Your task to perform on an android device: Go to Amazon Image 0: 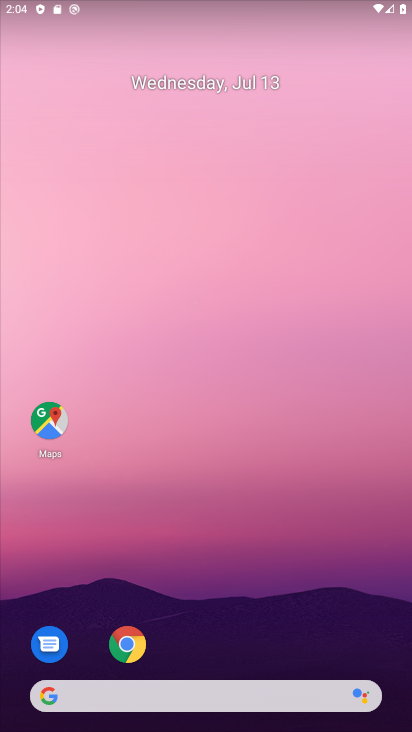
Step 0: drag from (355, 625) to (353, 209)
Your task to perform on an android device: Go to Amazon Image 1: 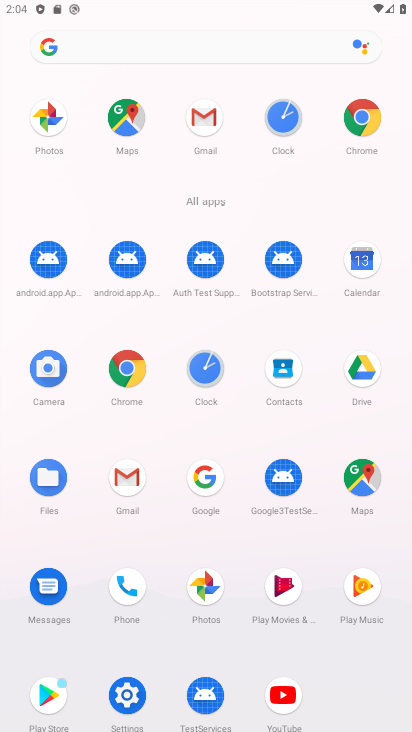
Step 1: click (128, 370)
Your task to perform on an android device: Go to Amazon Image 2: 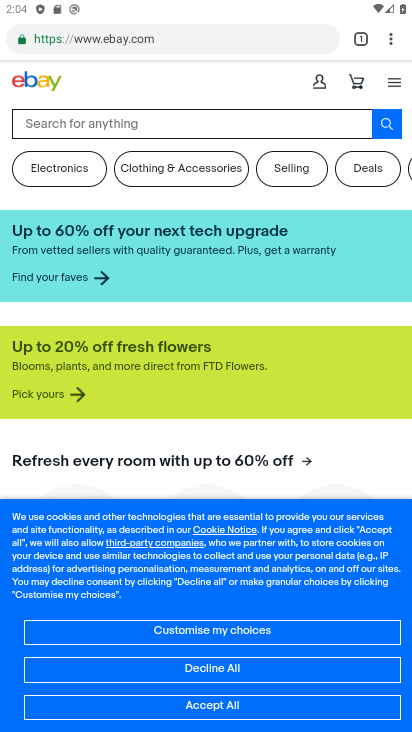
Step 2: click (199, 32)
Your task to perform on an android device: Go to Amazon Image 3: 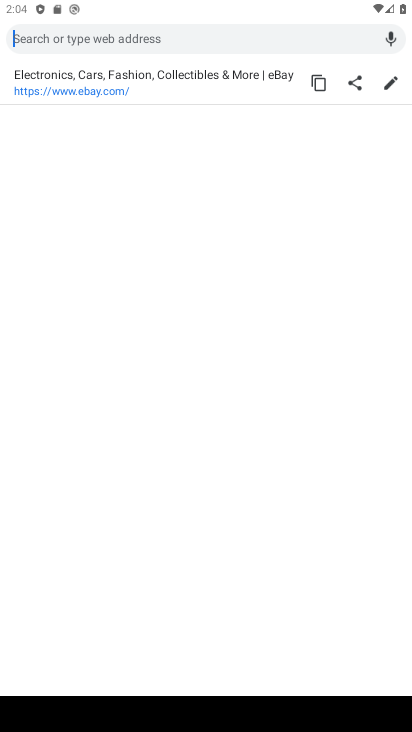
Step 3: type "amazon"
Your task to perform on an android device: Go to Amazon Image 4: 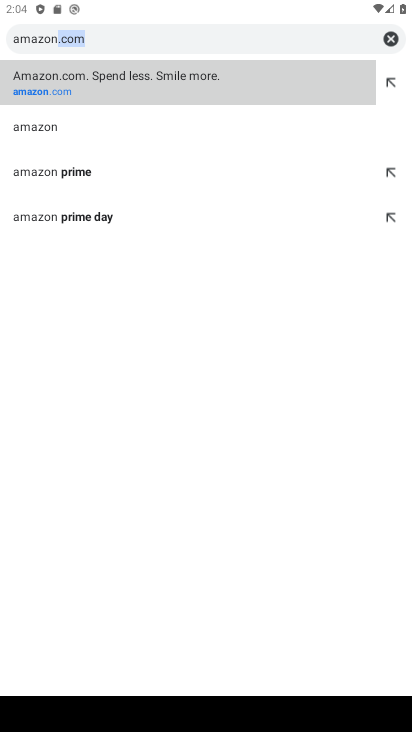
Step 4: click (120, 95)
Your task to perform on an android device: Go to Amazon Image 5: 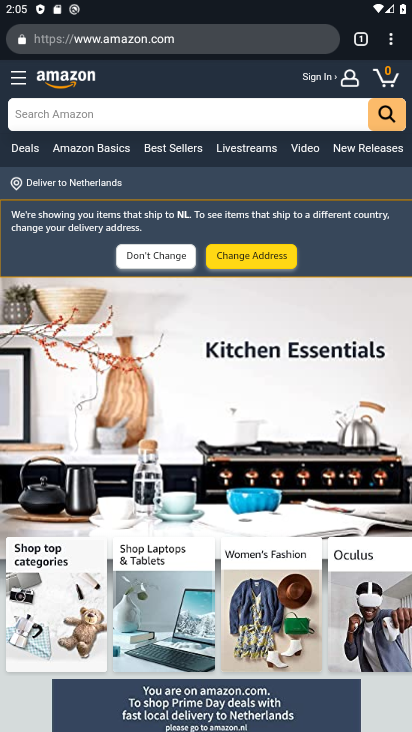
Step 5: task complete